Your task to perform on an android device: What's the weather today? Image 0: 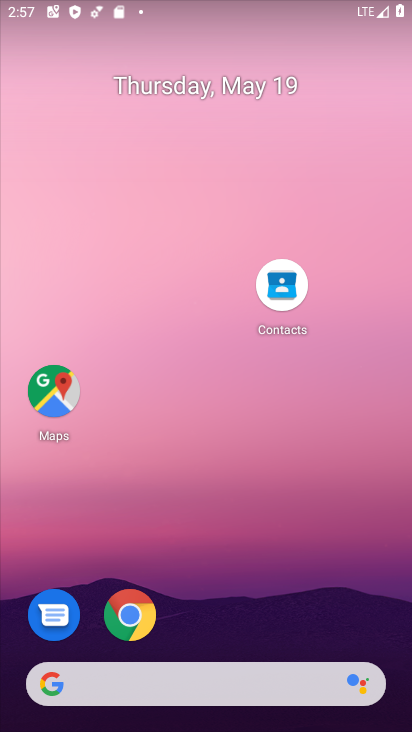
Step 0: drag from (268, 607) to (319, 156)
Your task to perform on an android device: What's the weather today? Image 1: 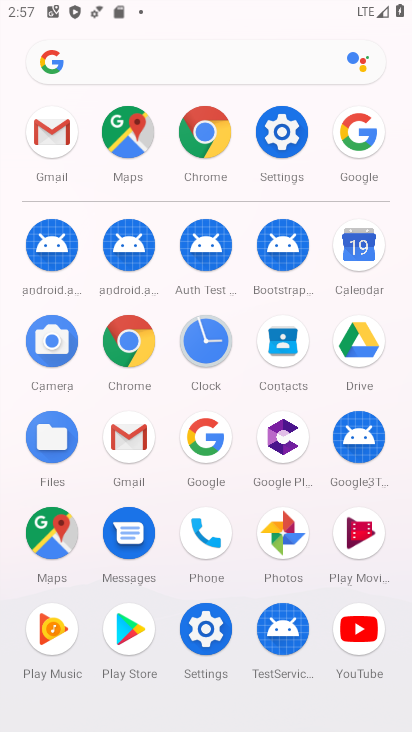
Step 1: drag from (210, 482) to (261, 314)
Your task to perform on an android device: What's the weather today? Image 2: 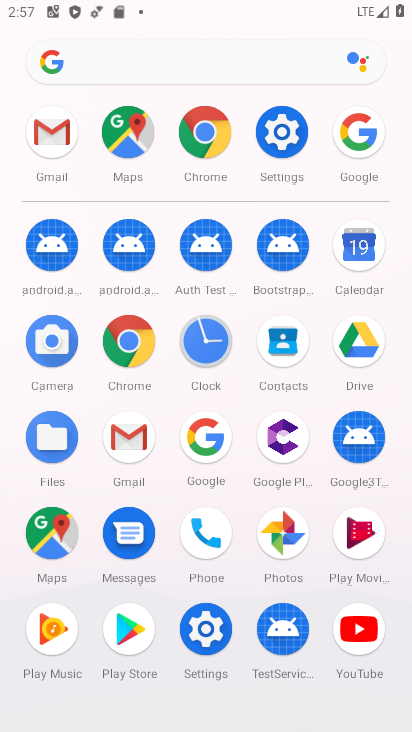
Step 2: click (201, 450)
Your task to perform on an android device: What's the weather today? Image 3: 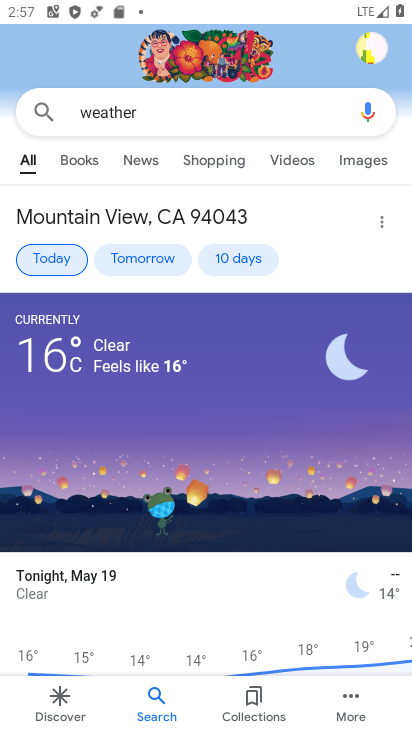
Step 3: task complete